Your task to perform on an android device: turn on improve location accuracy Image 0: 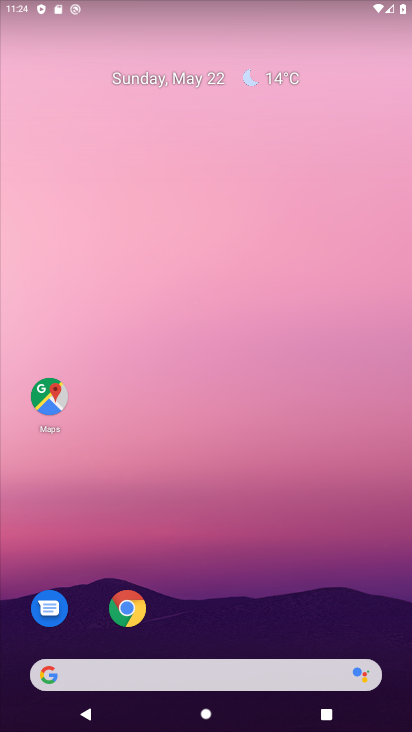
Step 0: drag from (224, 602) to (183, 180)
Your task to perform on an android device: turn on improve location accuracy Image 1: 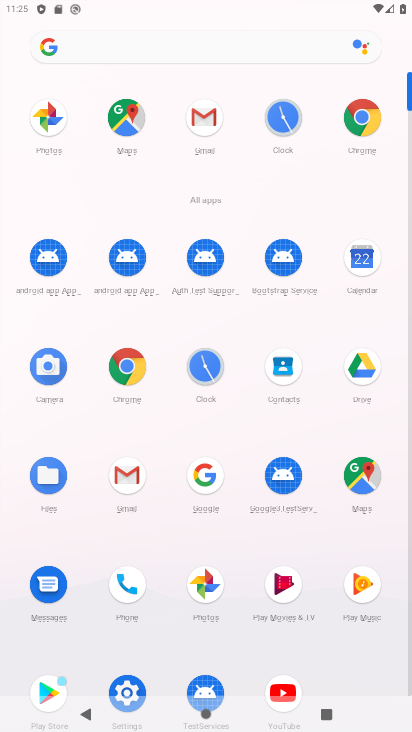
Step 1: click (128, 678)
Your task to perform on an android device: turn on improve location accuracy Image 2: 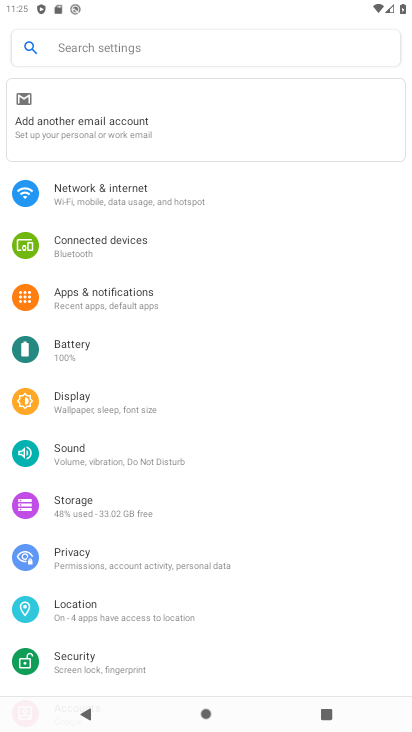
Step 2: click (135, 615)
Your task to perform on an android device: turn on improve location accuracy Image 3: 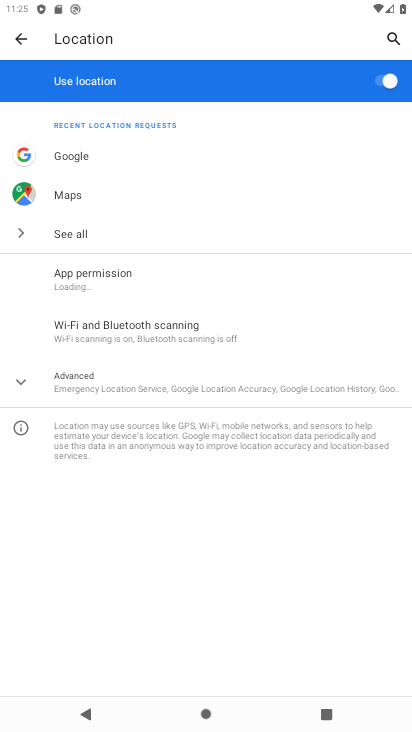
Step 3: click (160, 394)
Your task to perform on an android device: turn on improve location accuracy Image 4: 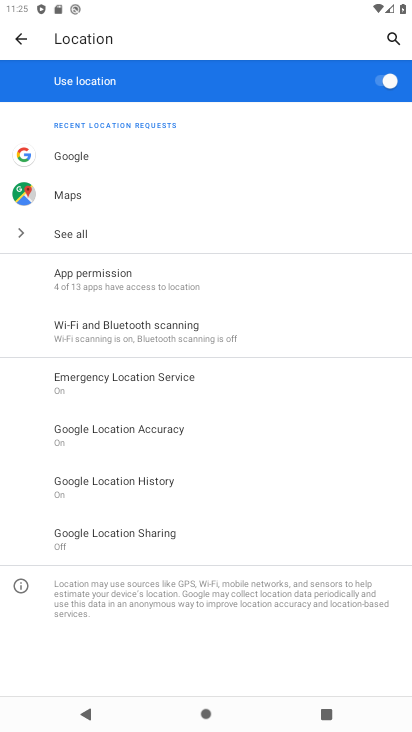
Step 4: click (178, 440)
Your task to perform on an android device: turn on improve location accuracy Image 5: 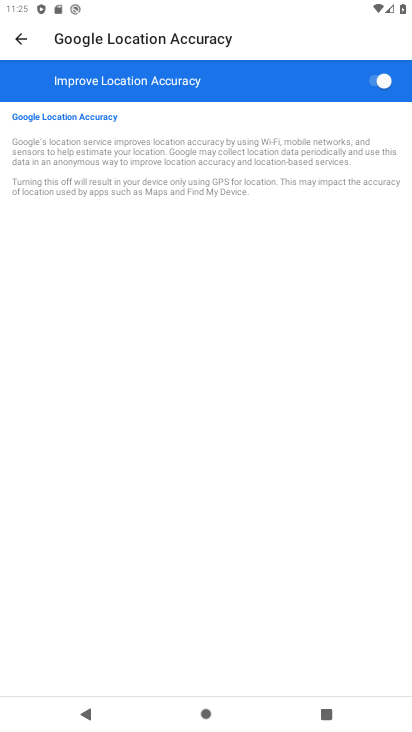
Step 5: task complete